Your task to perform on an android device: set default search engine in the chrome app Image 0: 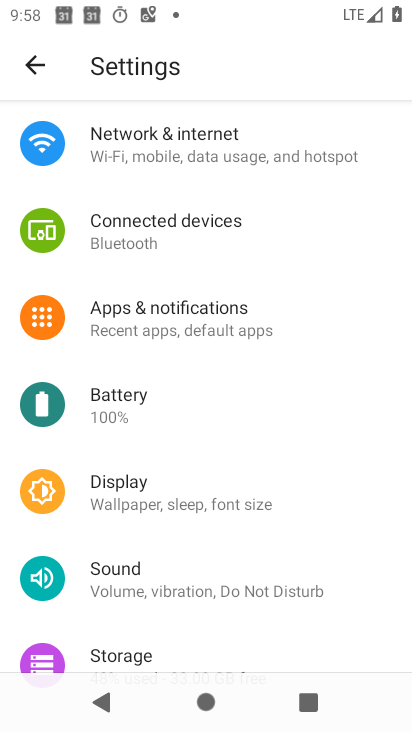
Step 0: press home button
Your task to perform on an android device: set default search engine in the chrome app Image 1: 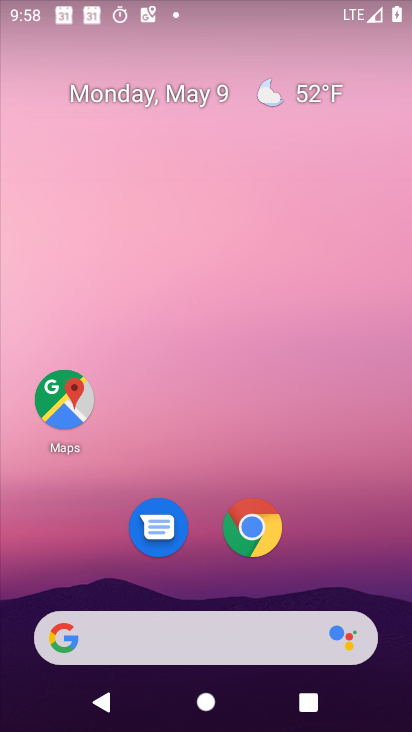
Step 1: drag from (360, 595) to (347, 223)
Your task to perform on an android device: set default search engine in the chrome app Image 2: 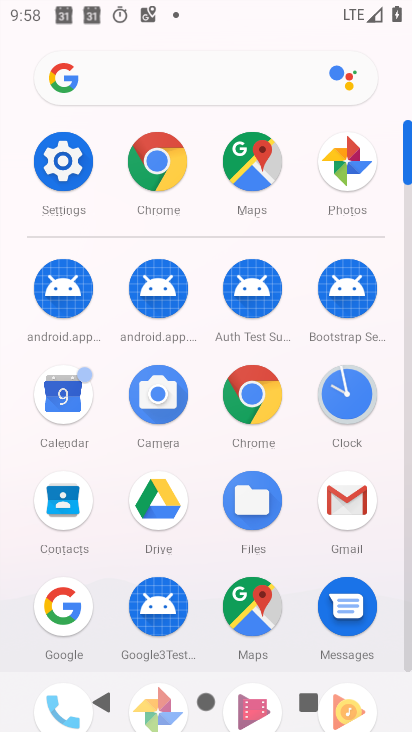
Step 2: click (265, 405)
Your task to perform on an android device: set default search engine in the chrome app Image 3: 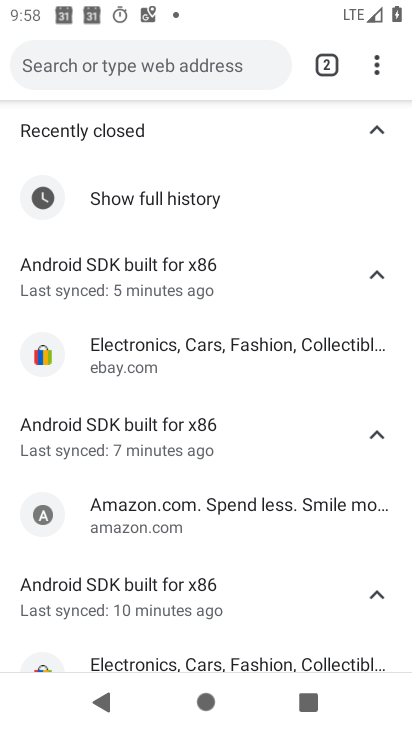
Step 3: drag from (375, 67) to (212, 556)
Your task to perform on an android device: set default search engine in the chrome app Image 4: 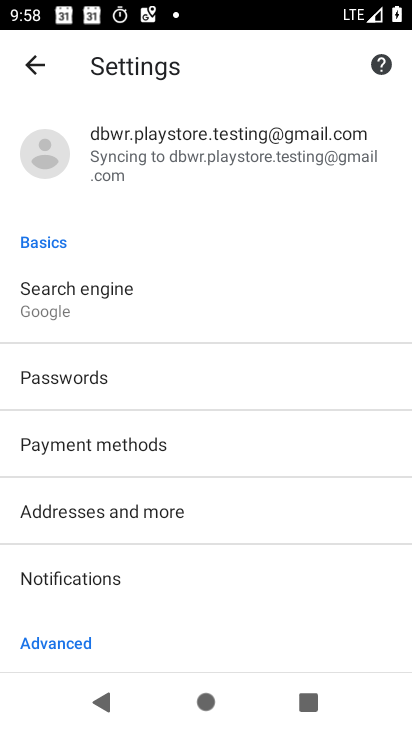
Step 4: click (91, 311)
Your task to perform on an android device: set default search engine in the chrome app Image 5: 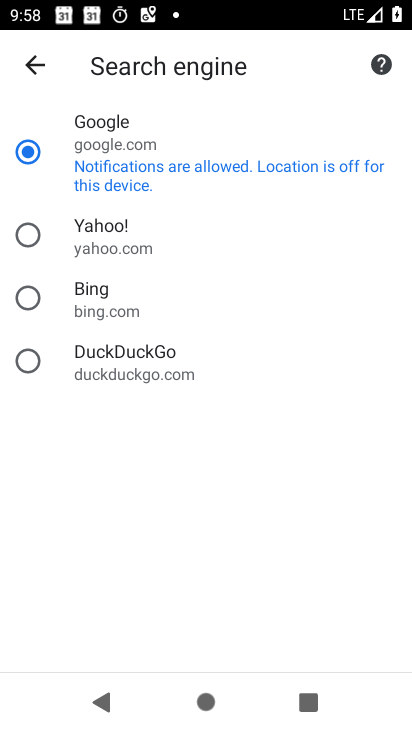
Step 5: click (112, 236)
Your task to perform on an android device: set default search engine in the chrome app Image 6: 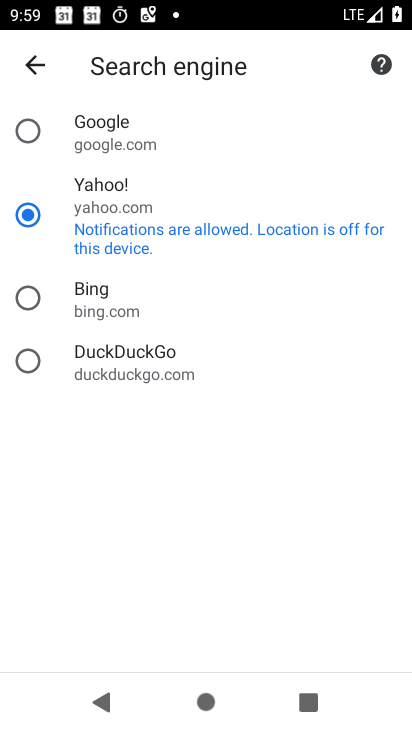
Step 6: task complete